Your task to perform on an android device: What's the weather today? Image 0: 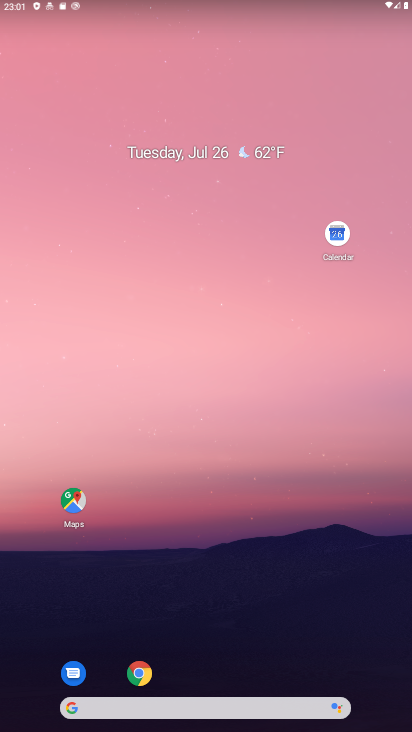
Step 0: drag from (220, 631) to (152, 175)
Your task to perform on an android device: What's the weather today? Image 1: 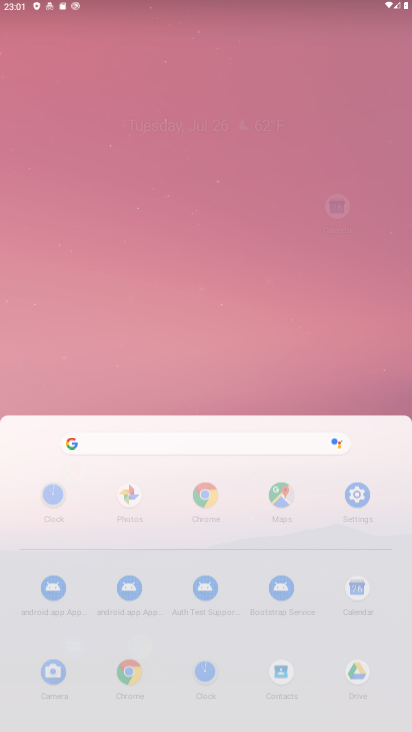
Step 1: drag from (215, 526) to (223, 170)
Your task to perform on an android device: What's the weather today? Image 2: 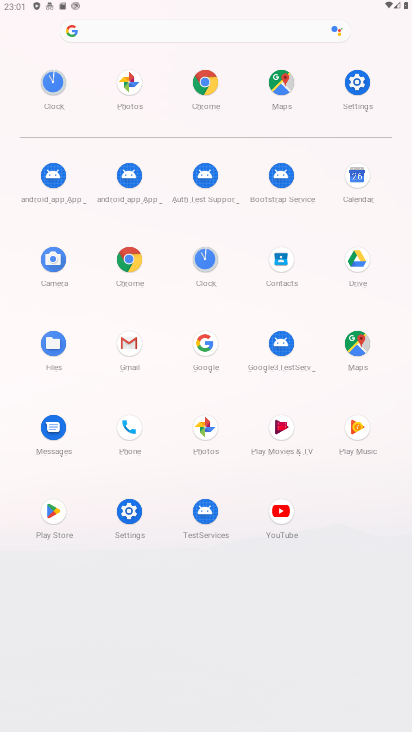
Step 2: click (205, 89)
Your task to perform on an android device: What's the weather today? Image 3: 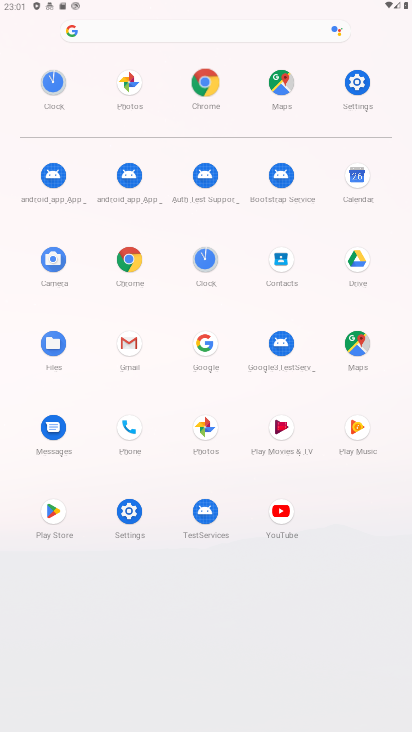
Step 3: click (204, 86)
Your task to perform on an android device: What's the weather today? Image 4: 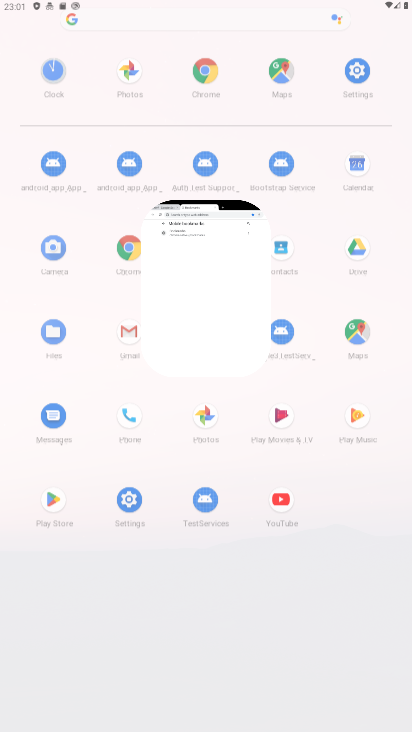
Step 4: click (204, 86)
Your task to perform on an android device: What's the weather today? Image 5: 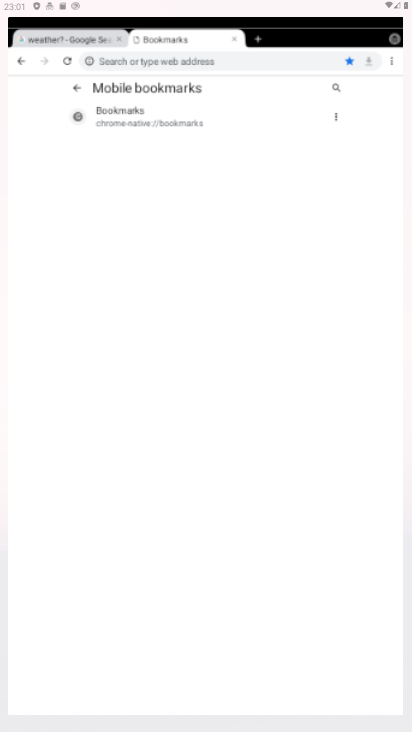
Step 5: click (204, 86)
Your task to perform on an android device: What's the weather today? Image 6: 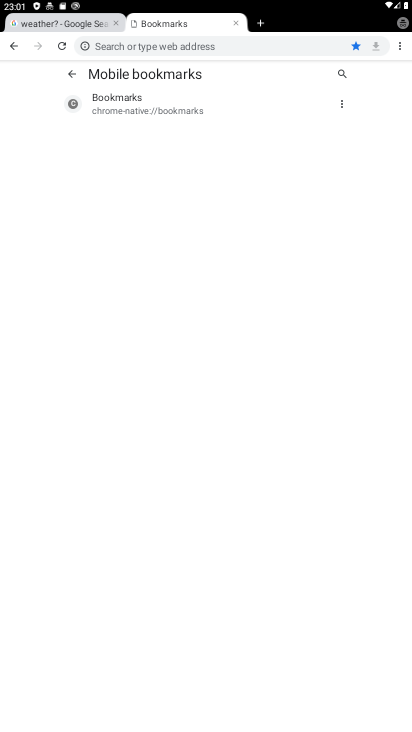
Step 6: click (241, 28)
Your task to perform on an android device: What's the weather today? Image 7: 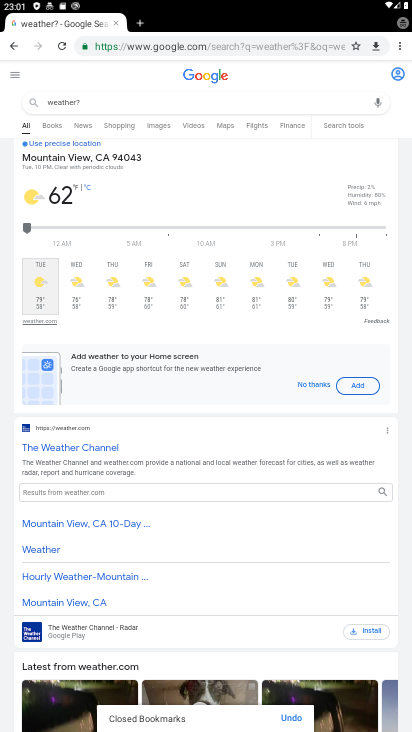
Step 7: click (98, 25)
Your task to perform on an android device: What's the weather today? Image 8: 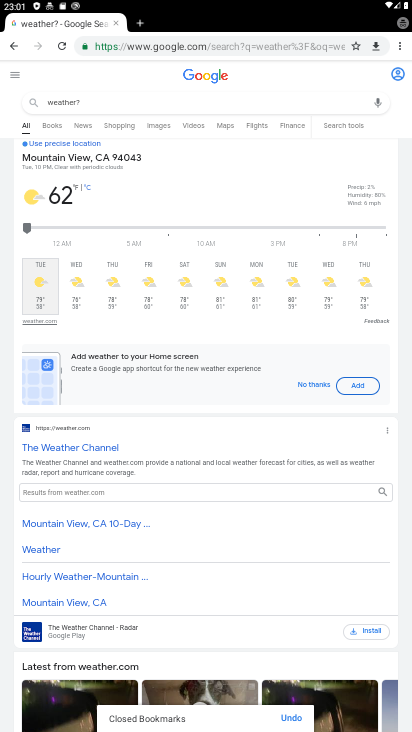
Step 8: click (111, 42)
Your task to perform on an android device: What's the weather today? Image 9: 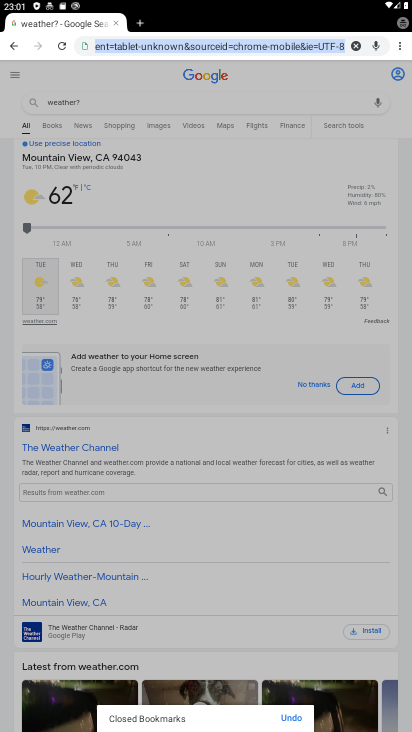
Step 9: click (115, 48)
Your task to perform on an android device: What's the weather today? Image 10: 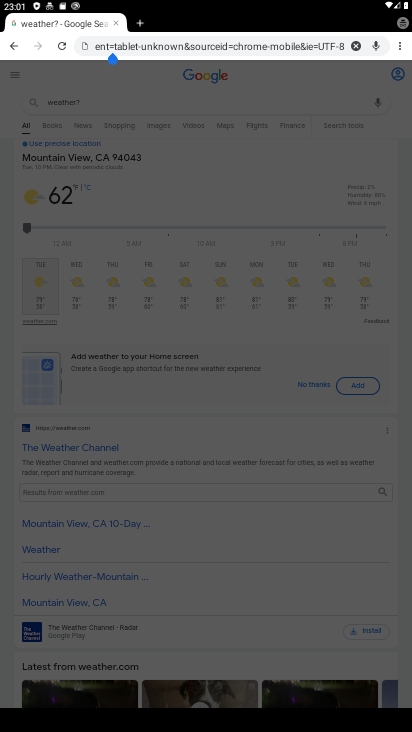
Step 10: press back button
Your task to perform on an android device: What's the weather today? Image 11: 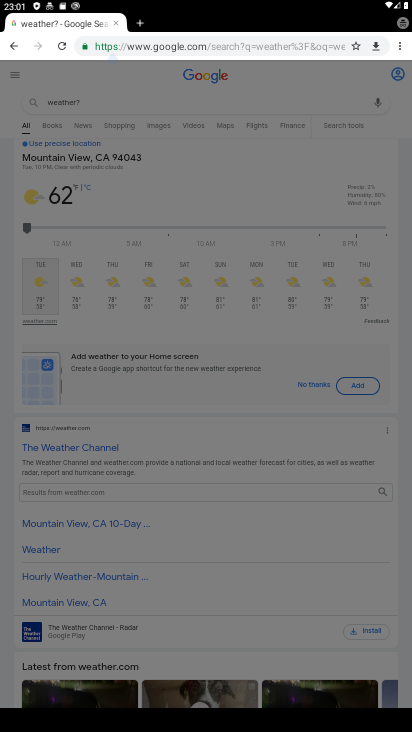
Step 11: press back button
Your task to perform on an android device: What's the weather today? Image 12: 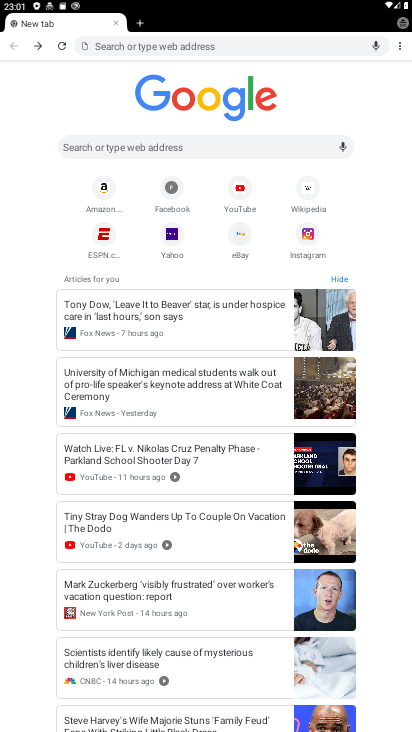
Step 12: type "weather today"
Your task to perform on an android device: What's the weather today? Image 13: 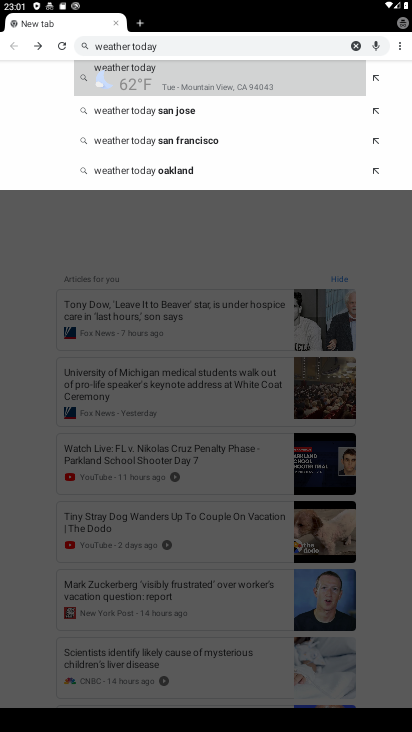
Step 13: click (155, 75)
Your task to perform on an android device: What's the weather today? Image 14: 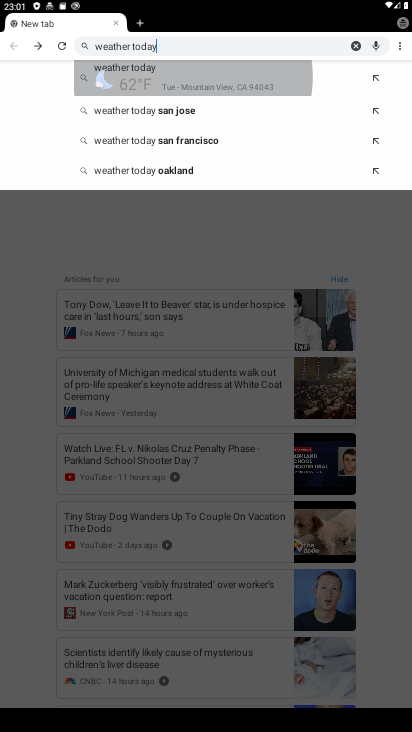
Step 14: click (154, 75)
Your task to perform on an android device: What's the weather today? Image 15: 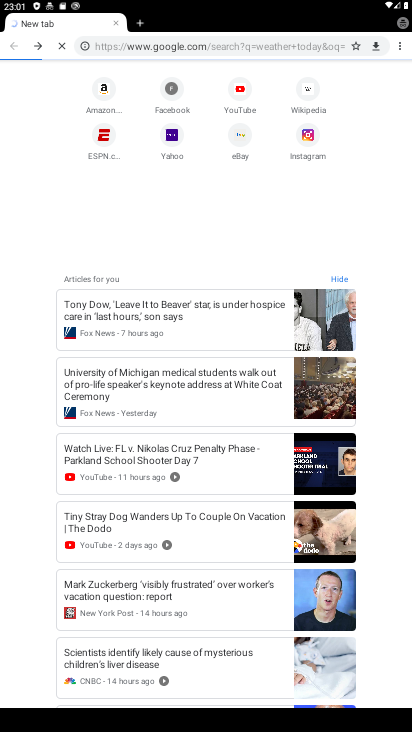
Step 15: click (154, 78)
Your task to perform on an android device: What's the weather today? Image 16: 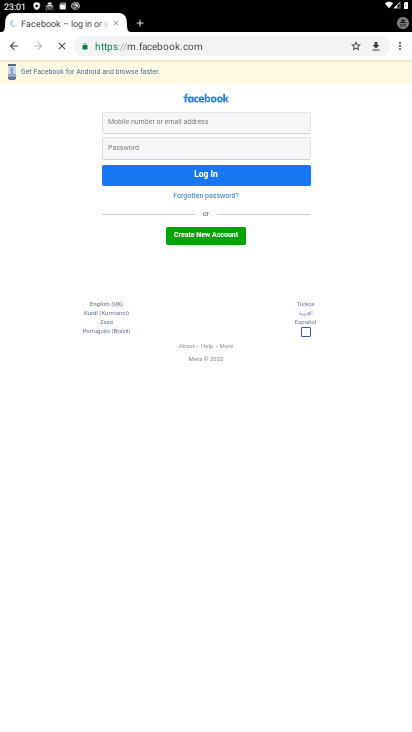
Step 16: task complete